Your task to perform on an android device: Open Maps and search for coffee Image 0: 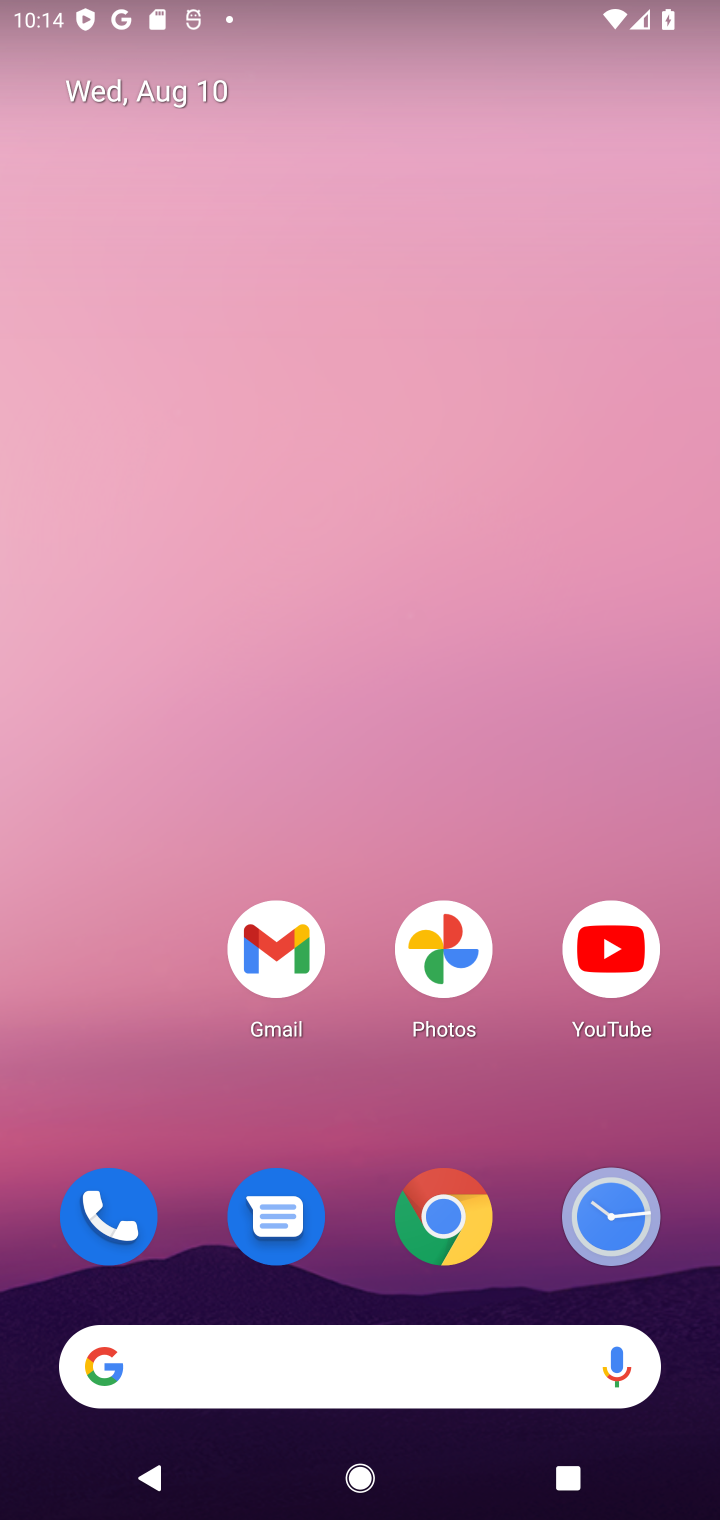
Step 0: drag from (49, 1260) to (434, 276)
Your task to perform on an android device: Open Maps and search for coffee Image 1: 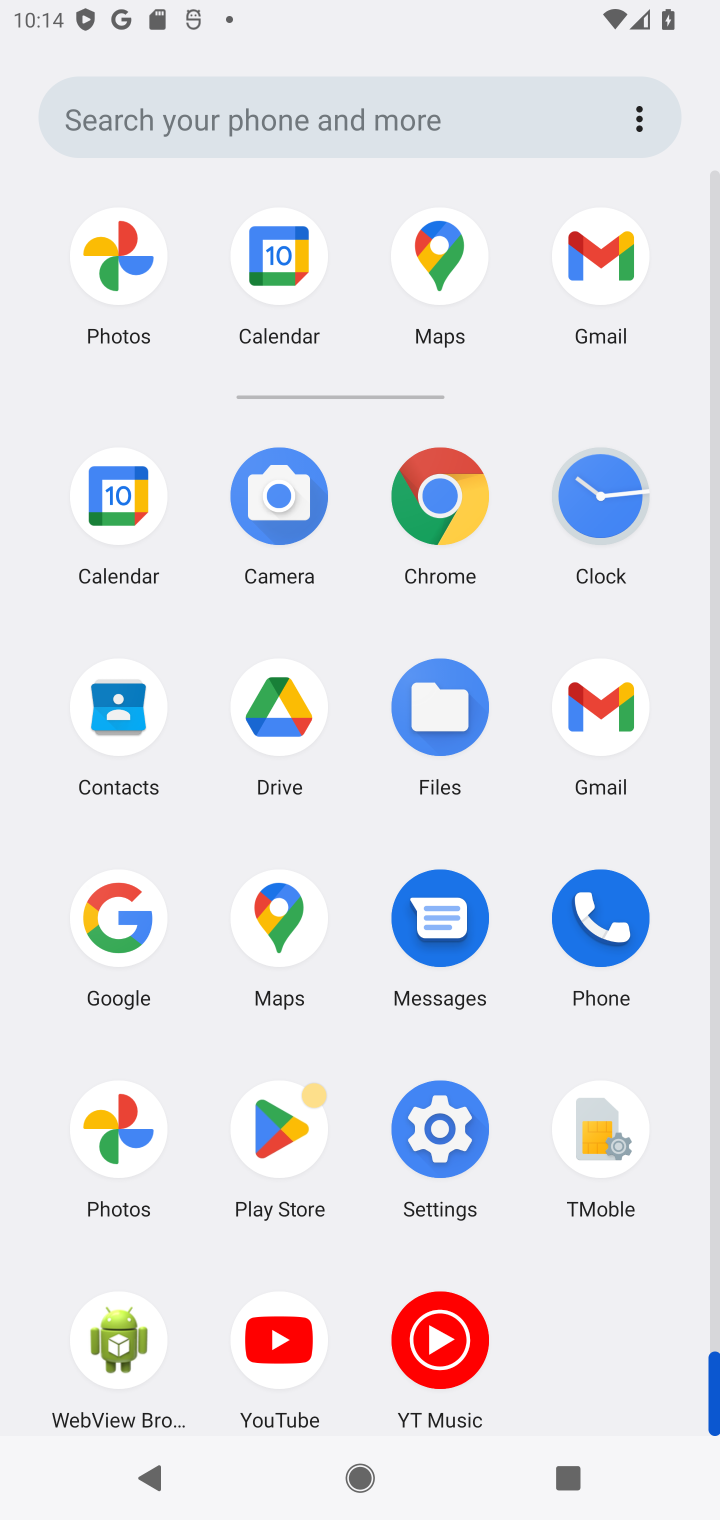
Step 1: click (260, 914)
Your task to perform on an android device: Open Maps and search for coffee Image 2: 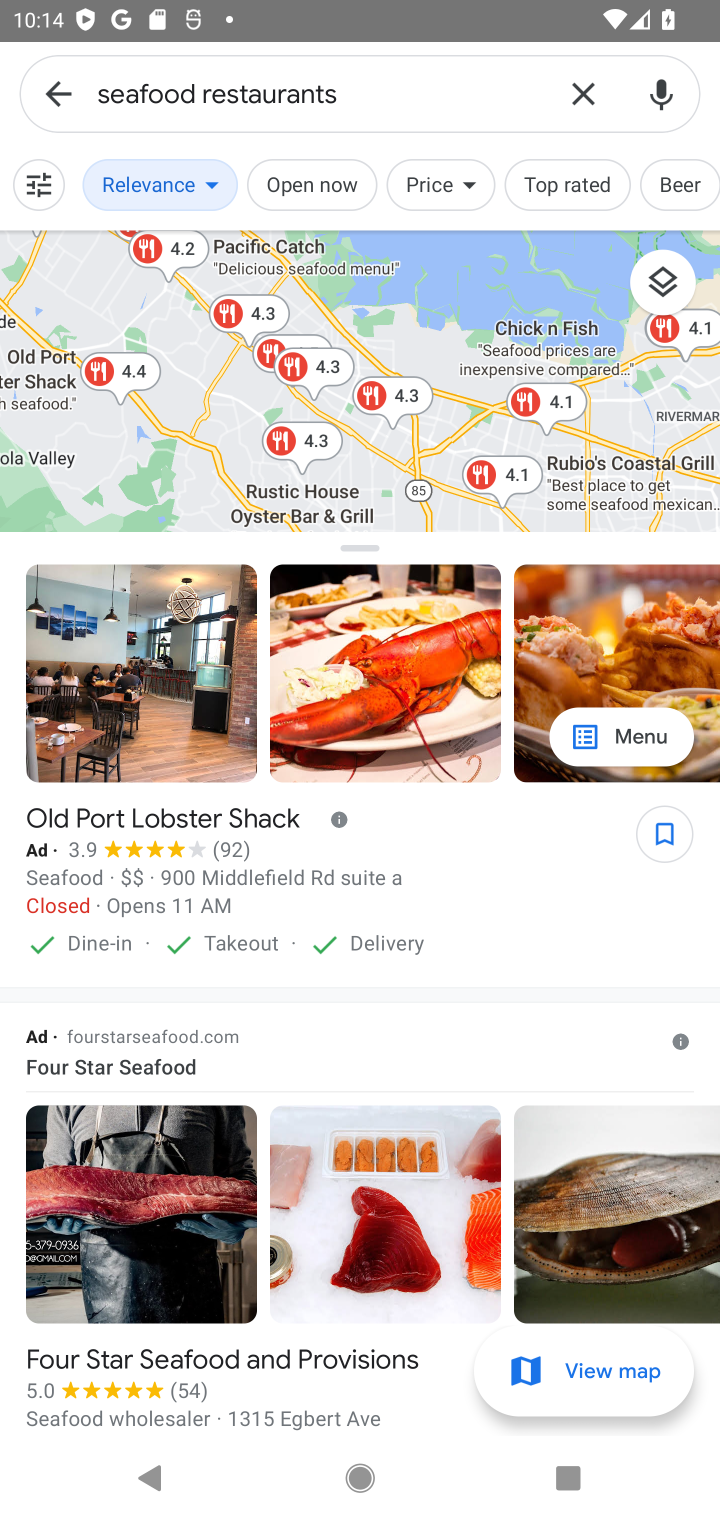
Step 2: click (581, 81)
Your task to perform on an android device: Open Maps and search for coffee Image 3: 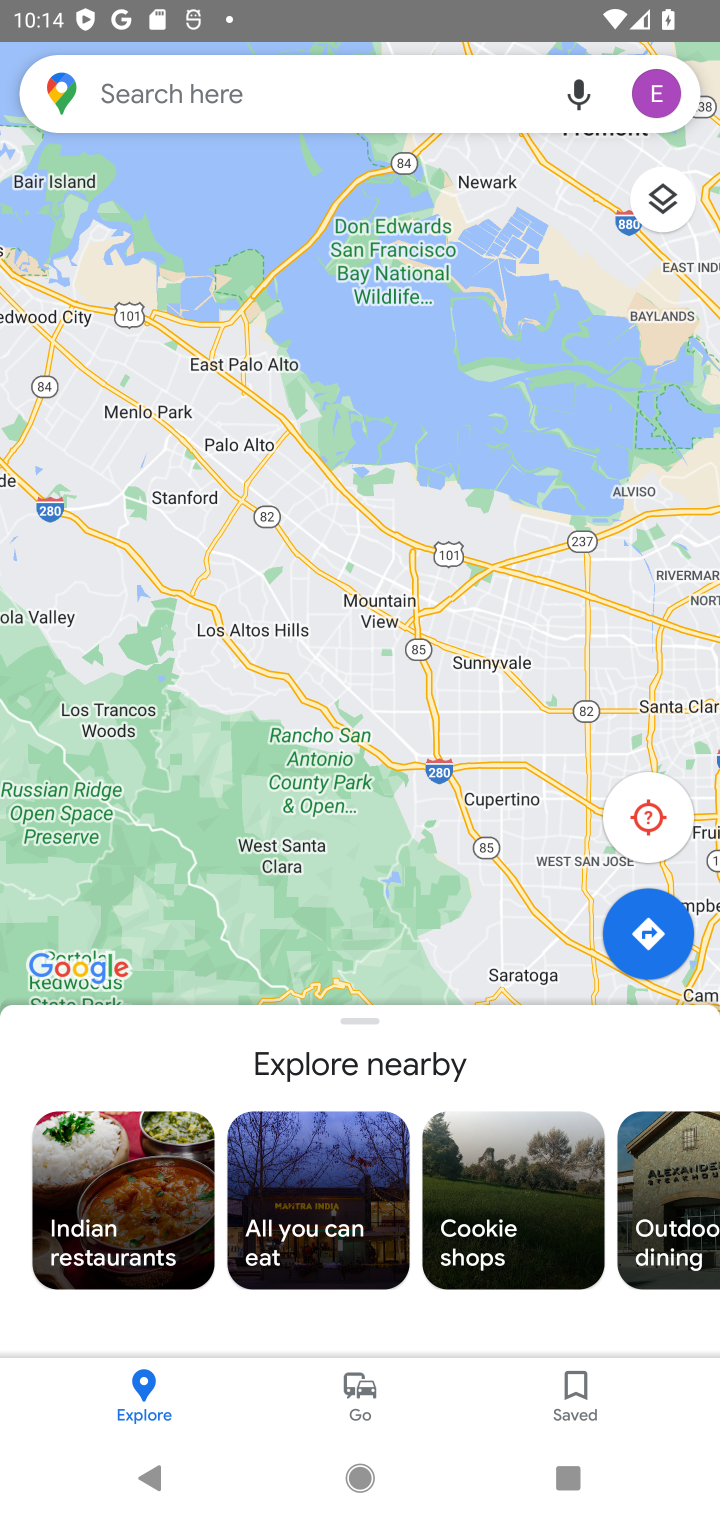
Step 3: click (301, 91)
Your task to perform on an android device: Open Maps and search for coffee Image 4: 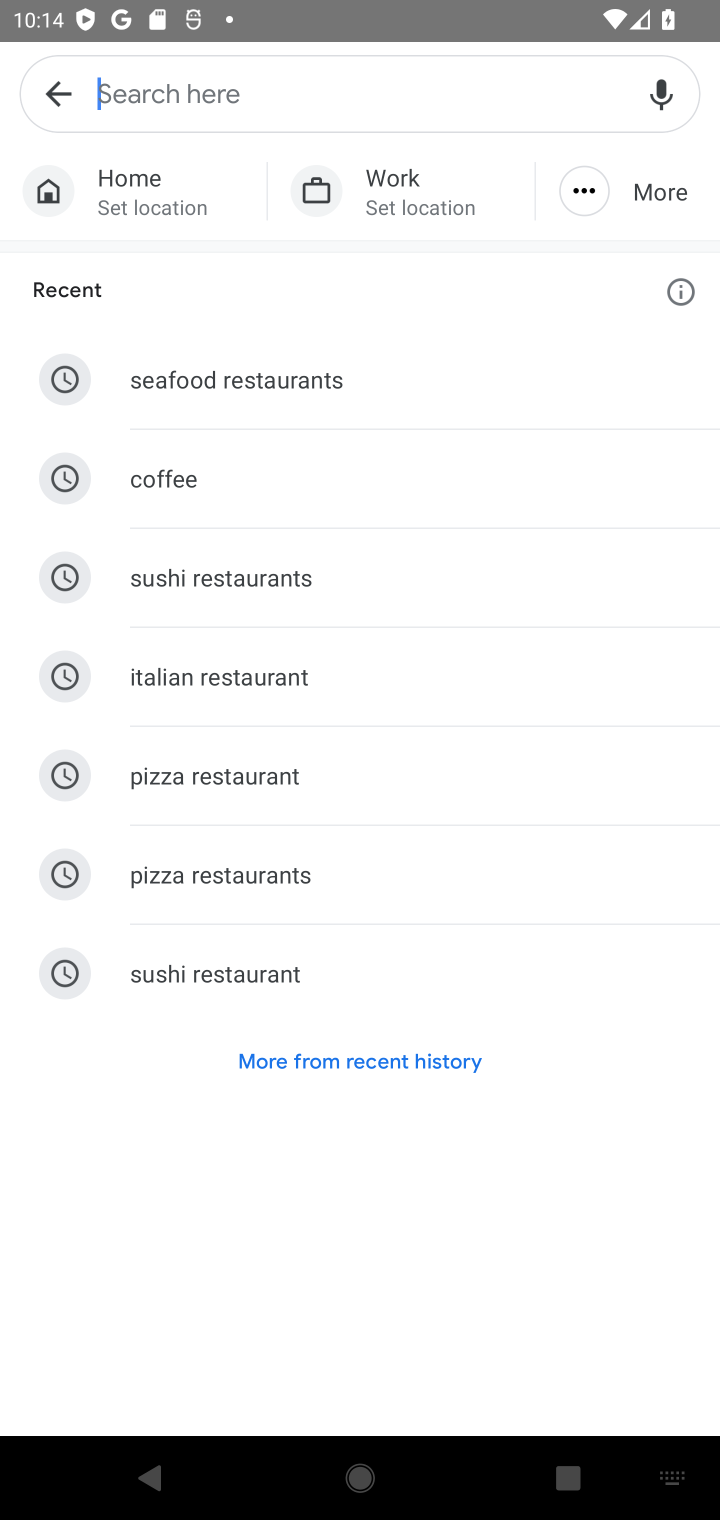
Step 4: click (193, 476)
Your task to perform on an android device: Open Maps and search for coffee Image 5: 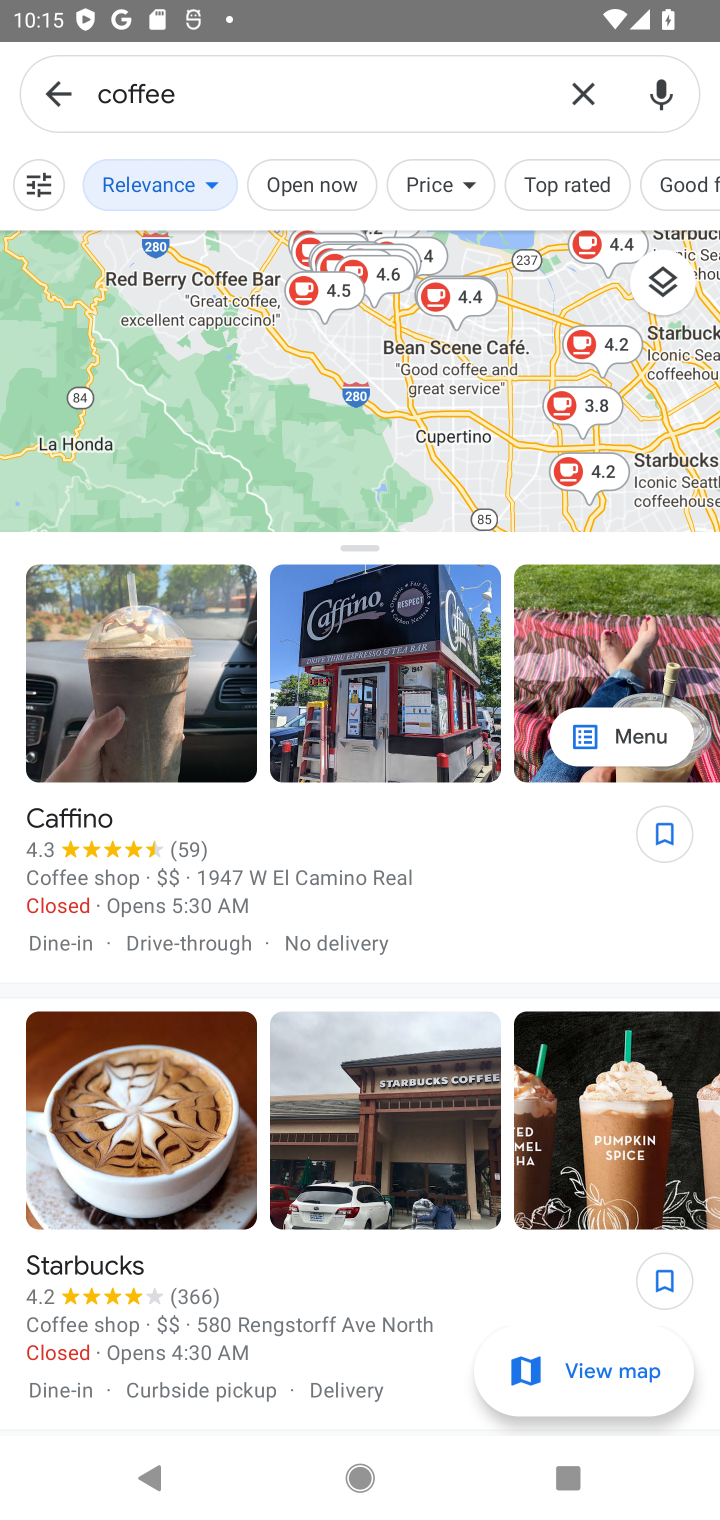
Step 5: task complete